Your task to perform on an android device: open a bookmark in the chrome app Image 0: 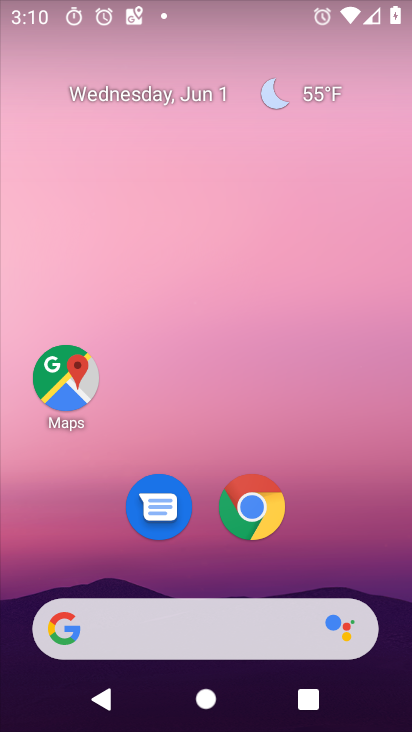
Step 0: click (251, 522)
Your task to perform on an android device: open a bookmark in the chrome app Image 1: 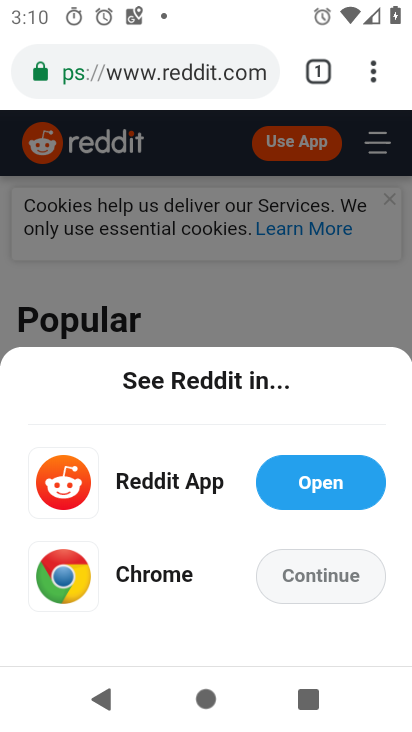
Step 1: click (377, 82)
Your task to perform on an android device: open a bookmark in the chrome app Image 2: 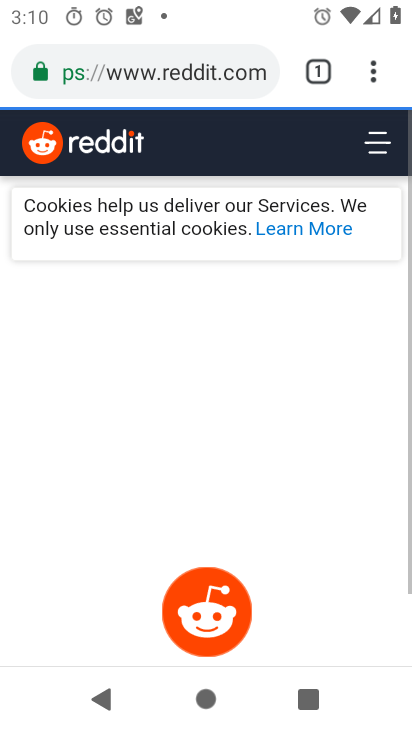
Step 2: click (377, 82)
Your task to perform on an android device: open a bookmark in the chrome app Image 3: 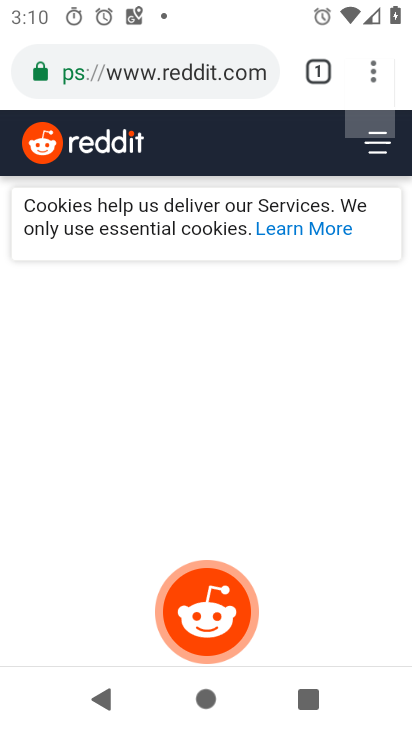
Step 3: drag from (377, 82) to (169, 271)
Your task to perform on an android device: open a bookmark in the chrome app Image 4: 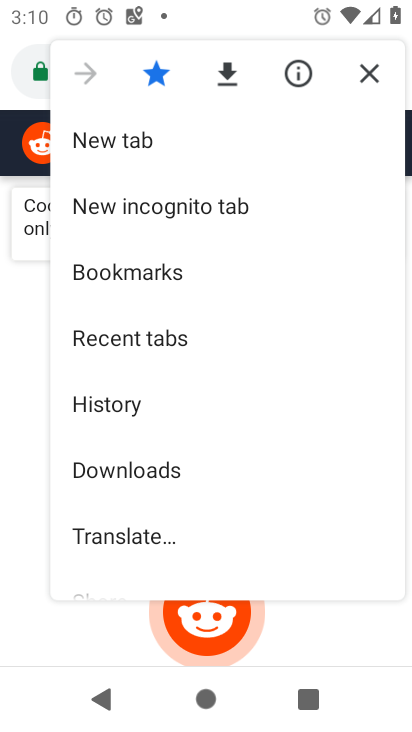
Step 4: click (169, 271)
Your task to perform on an android device: open a bookmark in the chrome app Image 5: 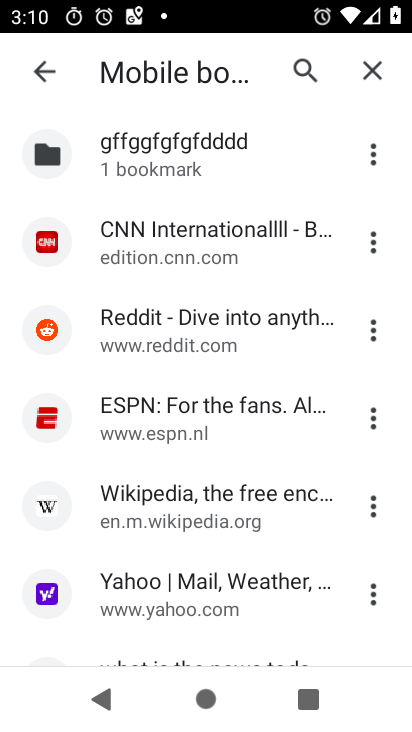
Step 5: click (136, 238)
Your task to perform on an android device: open a bookmark in the chrome app Image 6: 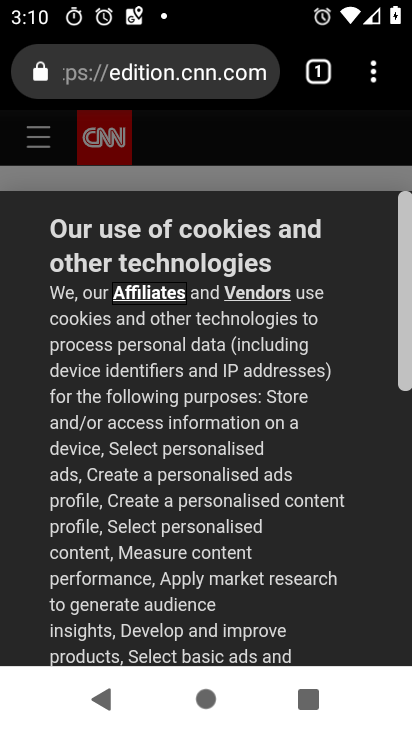
Step 6: task complete